Your task to perform on an android device: turn on location history Image 0: 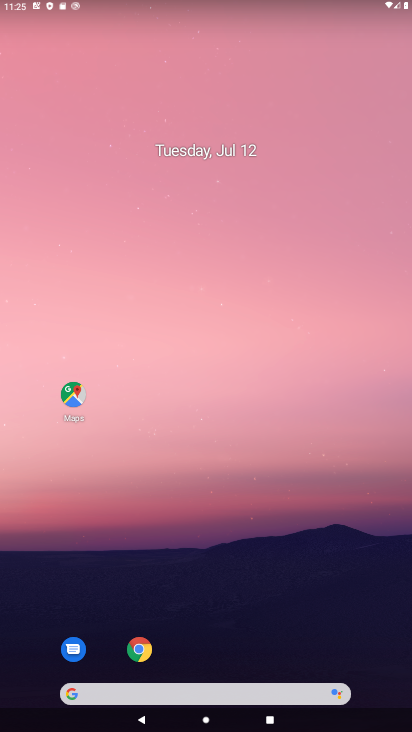
Step 0: click (76, 395)
Your task to perform on an android device: turn on location history Image 1: 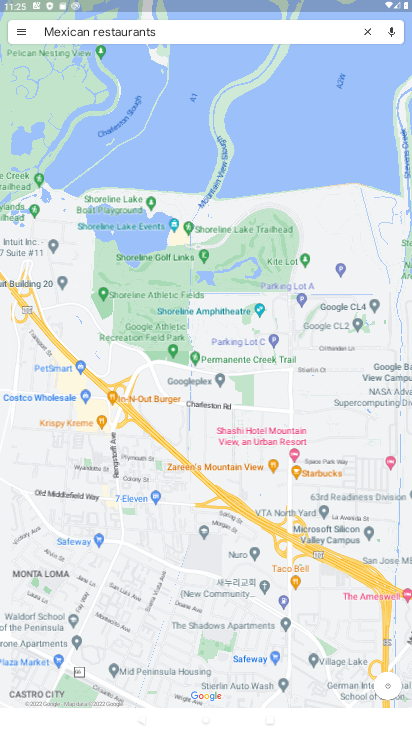
Step 1: click (20, 34)
Your task to perform on an android device: turn on location history Image 2: 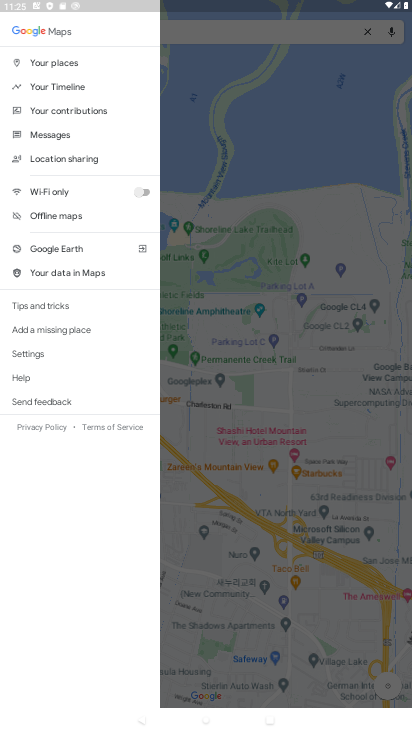
Step 2: click (32, 352)
Your task to perform on an android device: turn on location history Image 3: 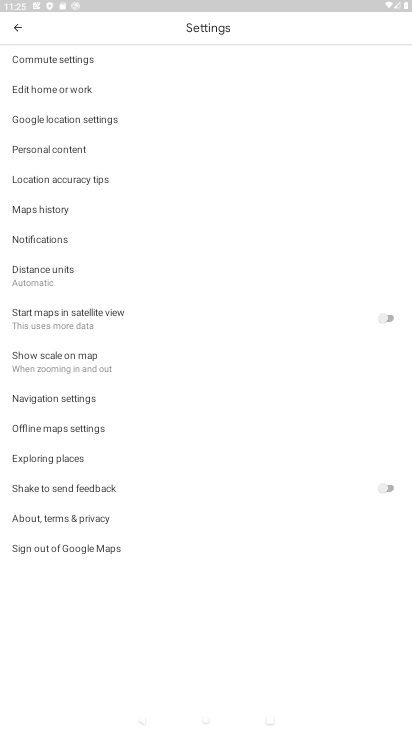
Step 3: click (33, 147)
Your task to perform on an android device: turn on location history Image 4: 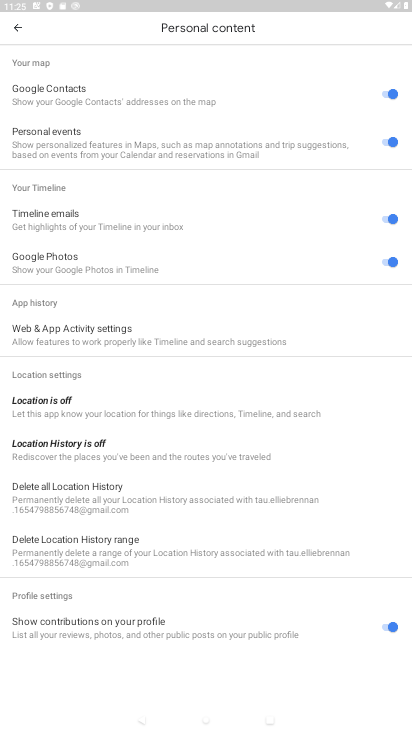
Step 4: click (57, 457)
Your task to perform on an android device: turn on location history Image 5: 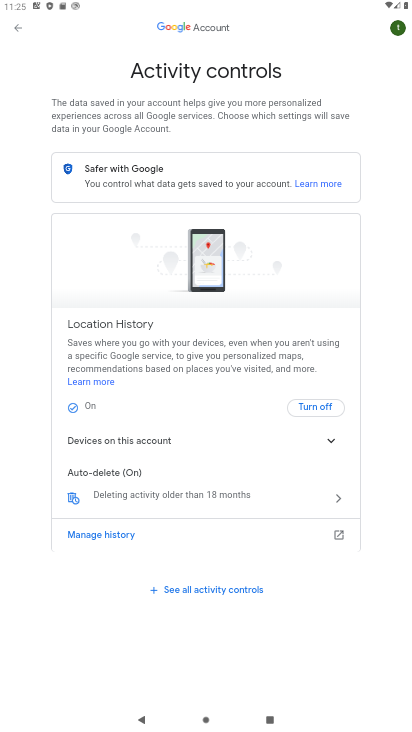
Step 5: task complete